Your task to perform on an android device: change notification settings in the gmail app Image 0: 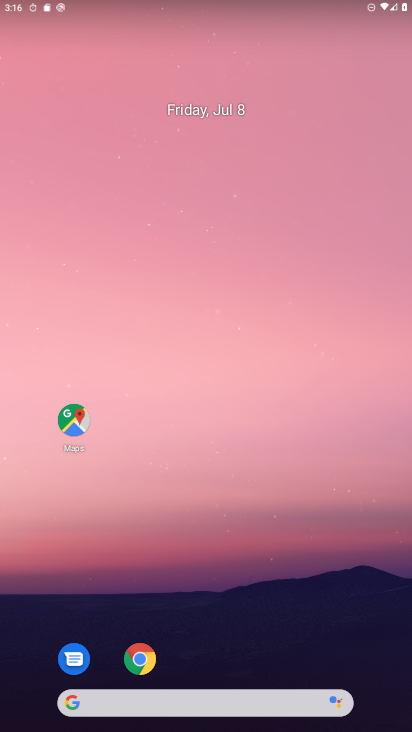
Step 0: drag from (305, 647) to (222, 2)
Your task to perform on an android device: change notification settings in the gmail app Image 1: 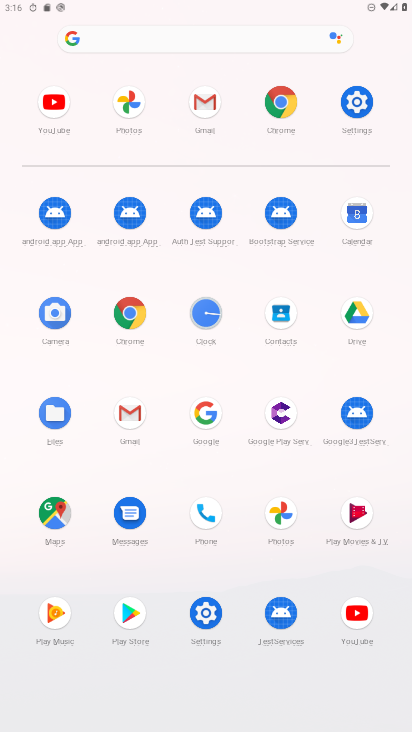
Step 1: click (197, 112)
Your task to perform on an android device: change notification settings in the gmail app Image 2: 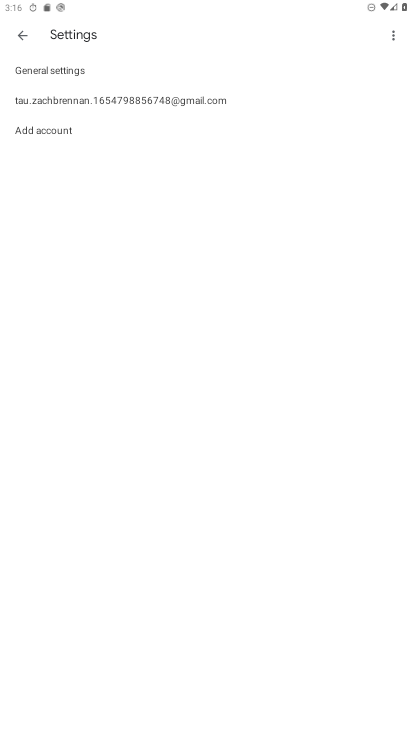
Step 2: click (100, 101)
Your task to perform on an android device: change notification settings in the gmail app Image 3: 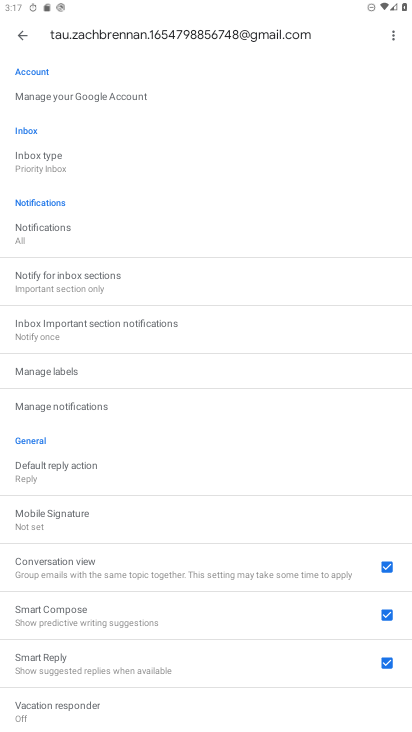
Step 3: click (69, 409)
Your task to perform on an android device: change notification settings in the gmail app Image 4: 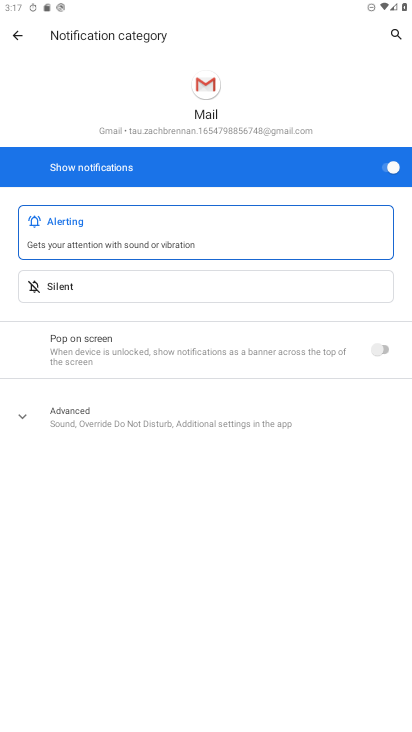
Step 4: click (367, 159)
Your task to perform on an android device: change notification settings in the gmail app Image 5: 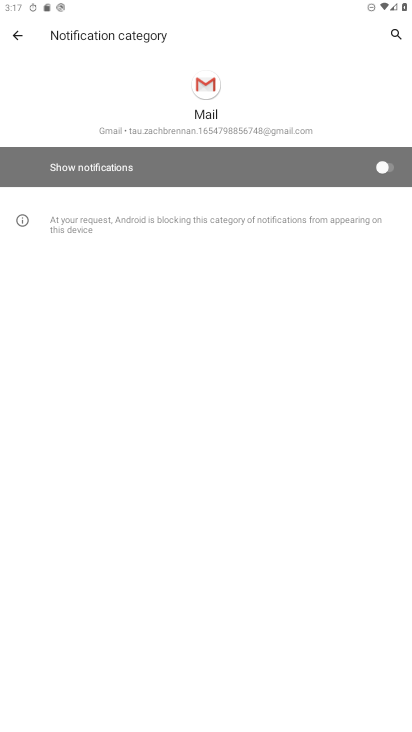
Step 5: task complete